Your task to perform on an android device: Open calendar and show me the third week of next month Image 0: 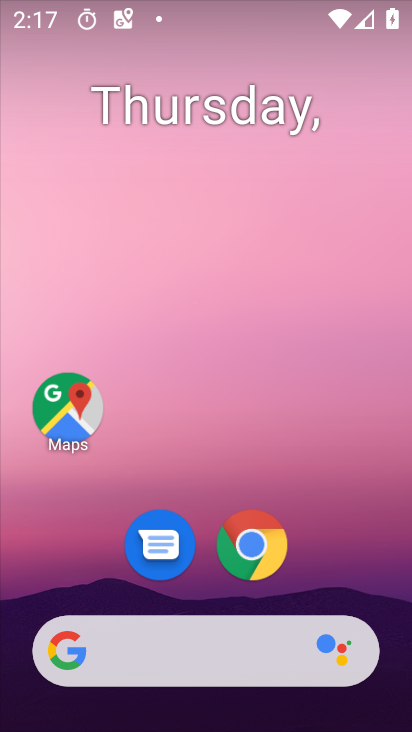
Step 0: drag from (206, 659) to (257, 138)
Your task to perform on an android device: Open calendar and show me the third week of next month Image 1: 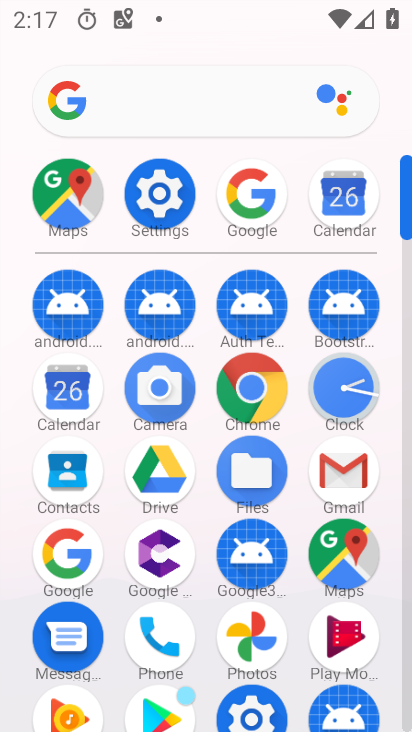
Step 1: click (74, 388)
Your task to perform on an android device: Open calendar and show me the third week of next month Image 2: 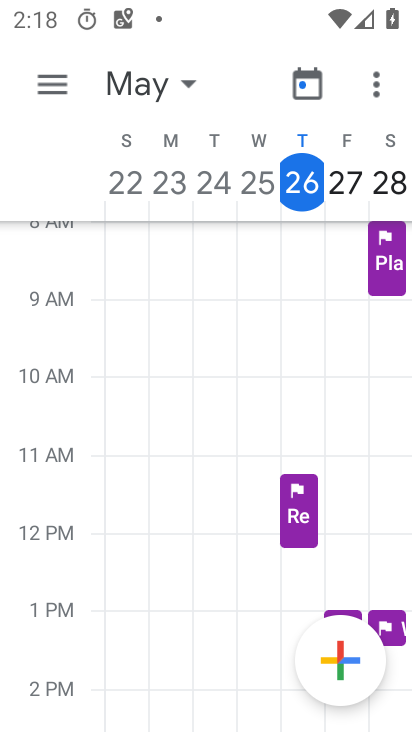
Step 2: click (190, 84)
Your task to perform on an android device: Open calendar and show me the third week of next month Image 3: 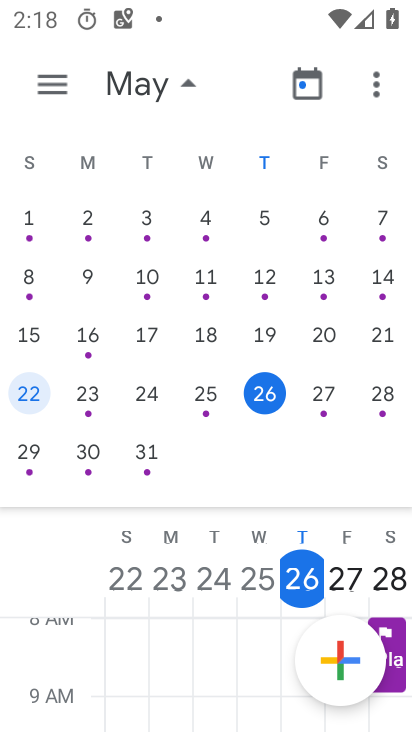
Step 3: drag from (379, 359) to (4, 303)
Your task to perform on an android device: Open calendar and show me the third week of next month Image 4: 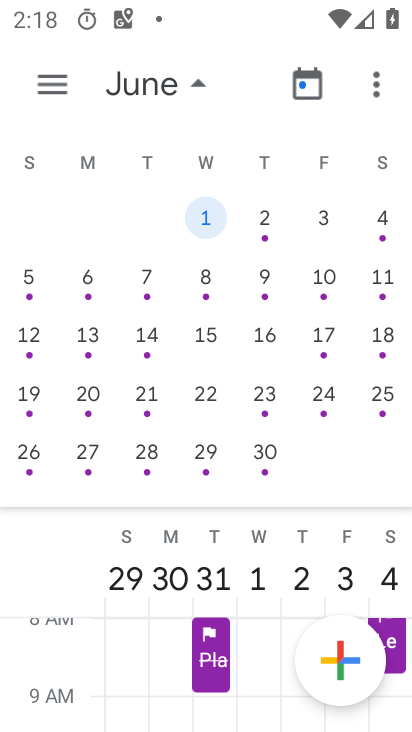
Step 4: click (81, 391)
Your task to perform on an android device: Open calendar and show me the third week of next month Image 5: 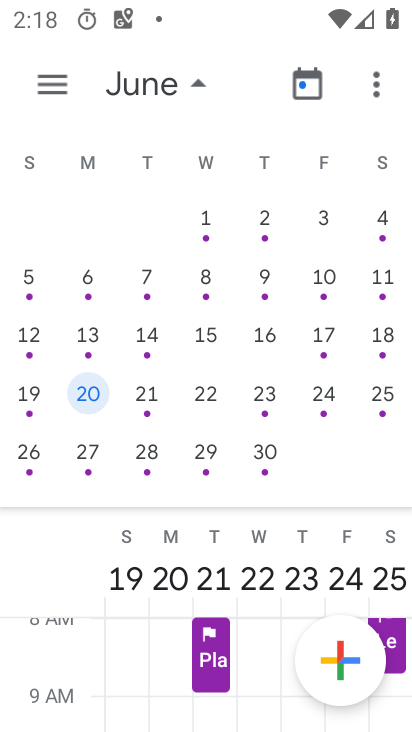
Step 5: click (54, 87)
Your task to perform on an android device: Open calendar and show me the third week of next month Image 6: 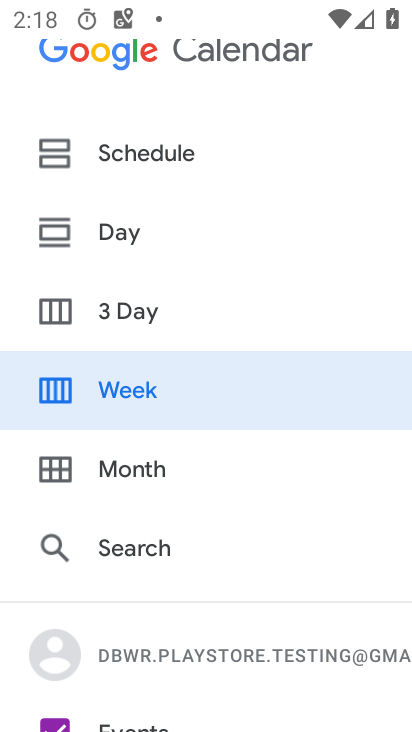
Step 6: click (131, 392)
Your task to perform on an android device: Open calendar and show me the third week of next month Image 7: 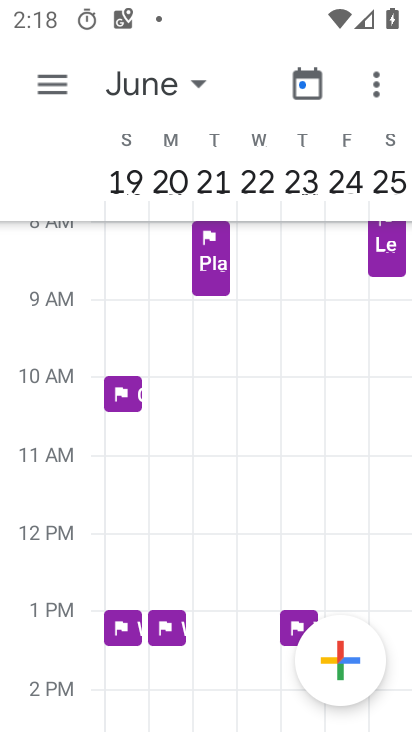
Step 7: task complete